Your task to perform on an android device: Search for flights from NYC to Barcelona Image 0: 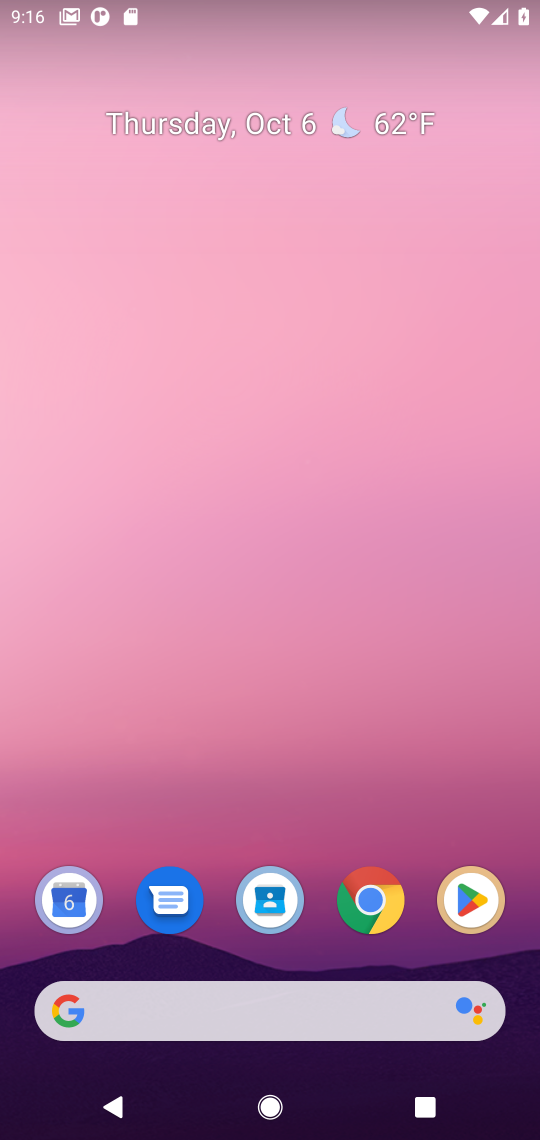
Step 0: press home button
Your task to perform on an android device: Search for flights from NYC to Barcelona Image 1: 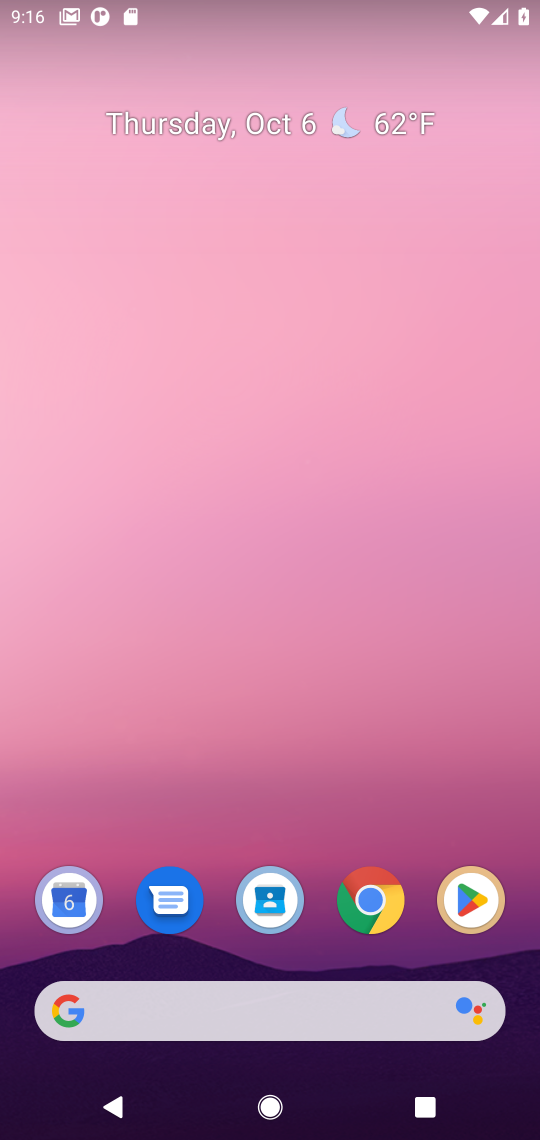
Step 1: click (329, 1007)
Your task to perform on an android device: Search for flights from NYC to Barcelona Image 2: 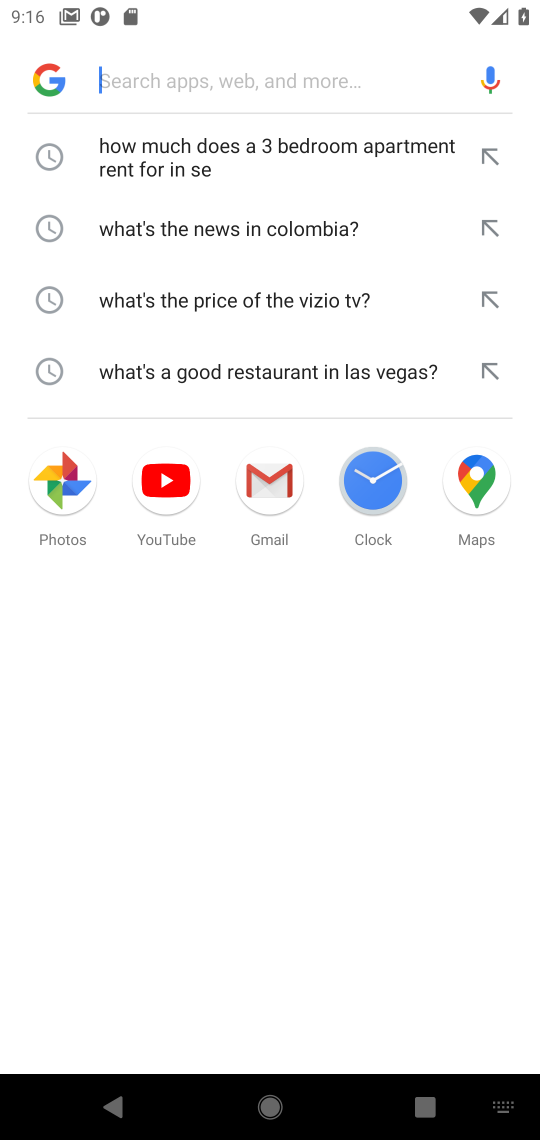
Step 2: type "flights from NYC to Barcelona"
Your task to perform on an android device: Search for flights from NYC to Barcelona Image 3: 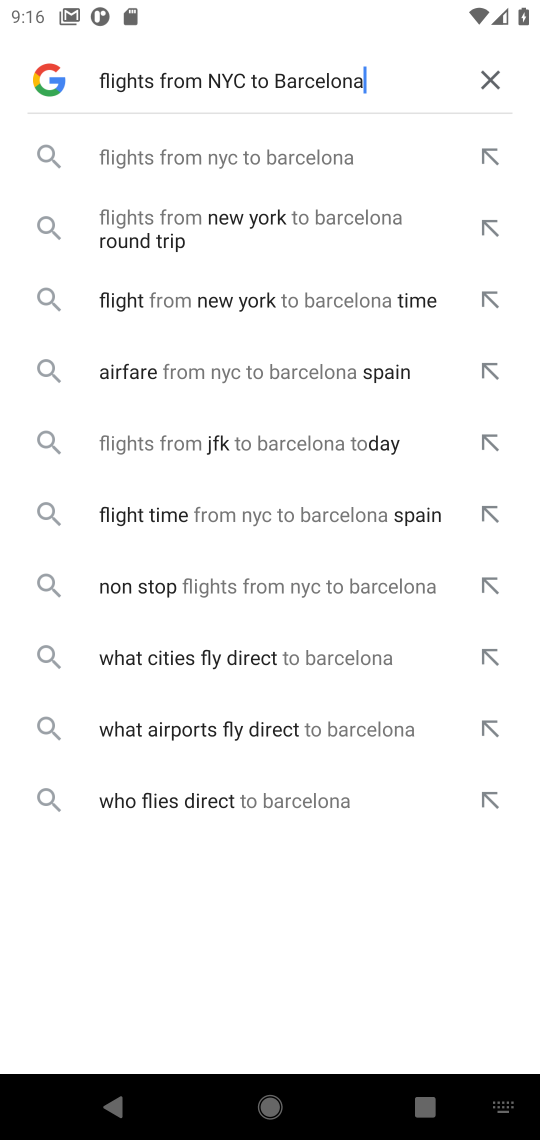
Step 3: press enter
Your task to perform on an android device: Search for flights from NYC to Barcelona Image 4: 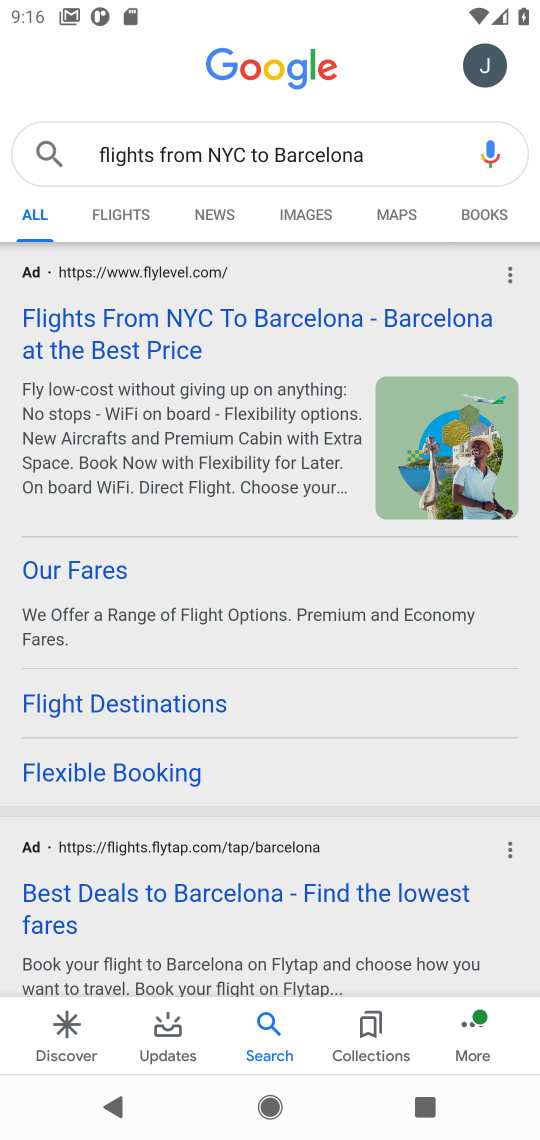
Step 4: drag from (310, 891) to (316, 606)
Your task to perform on an android device: Search for flights from NYC to Barcelona Image 5: 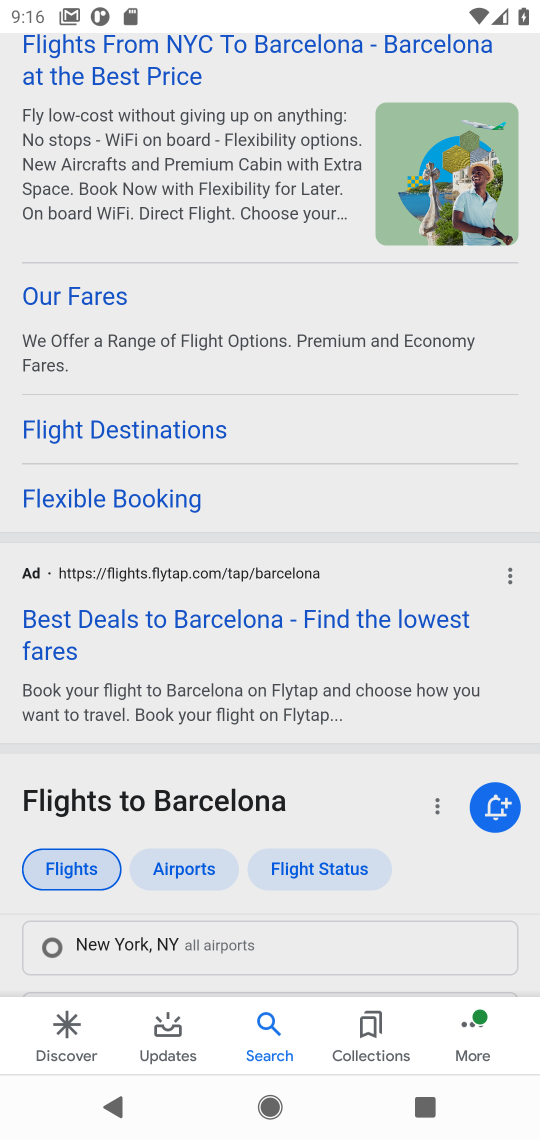
Step 5: drag from (348, 922) to (342, 430)
Your task to perform on an android device: Search for flights from NYC to Barcelona Image 6: 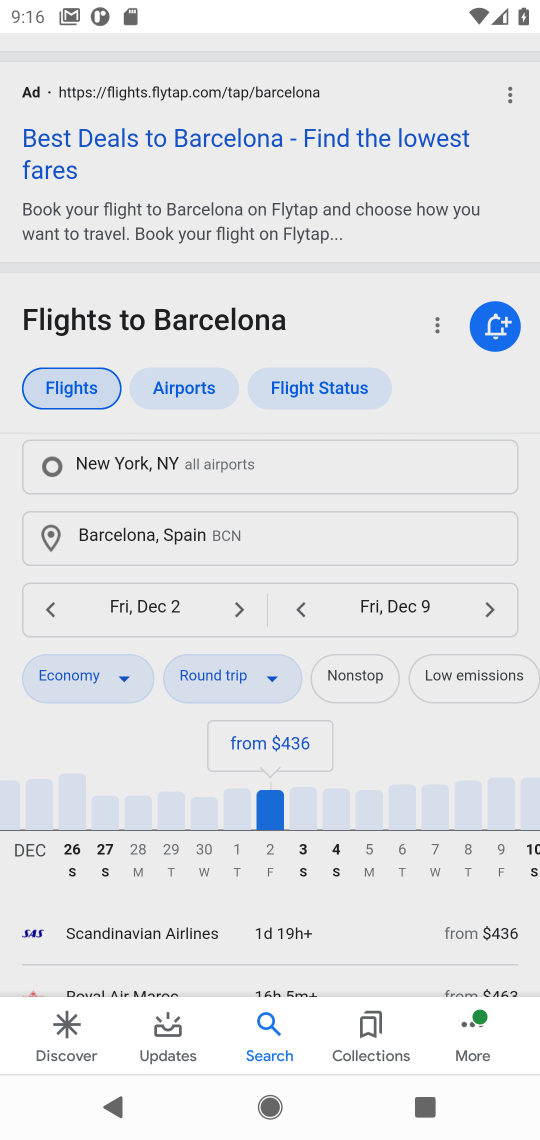
Step 6: drag from (344, 891) to (350, 419)
Your task to perform on an android device: Search for flights from NYC to Barcelona Image 7: 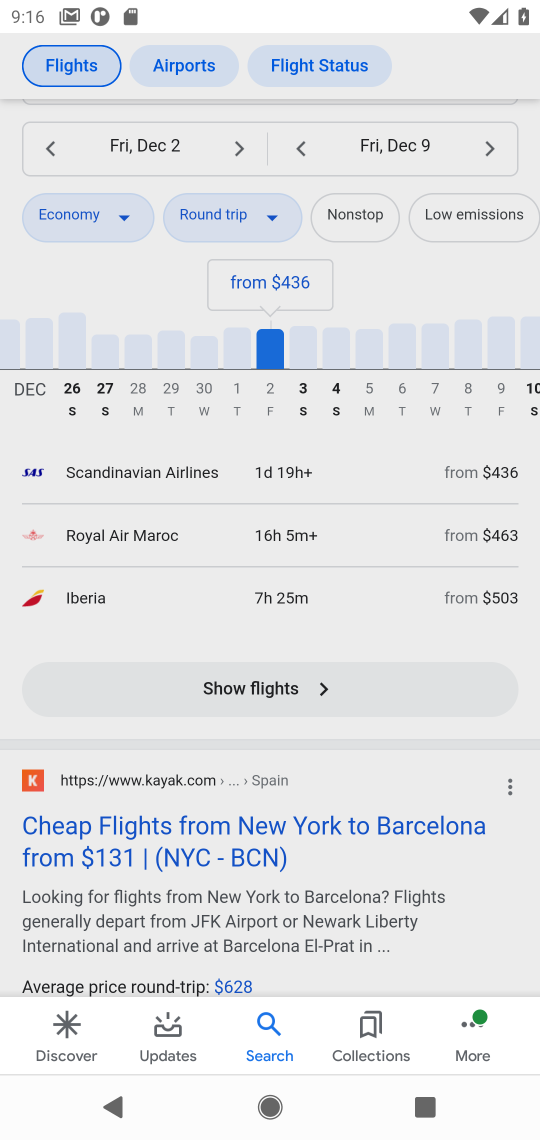
Step 7: click (257, 685)
Your task to perform on an android device: Search for flights from NYC to Barcelona Image 8: 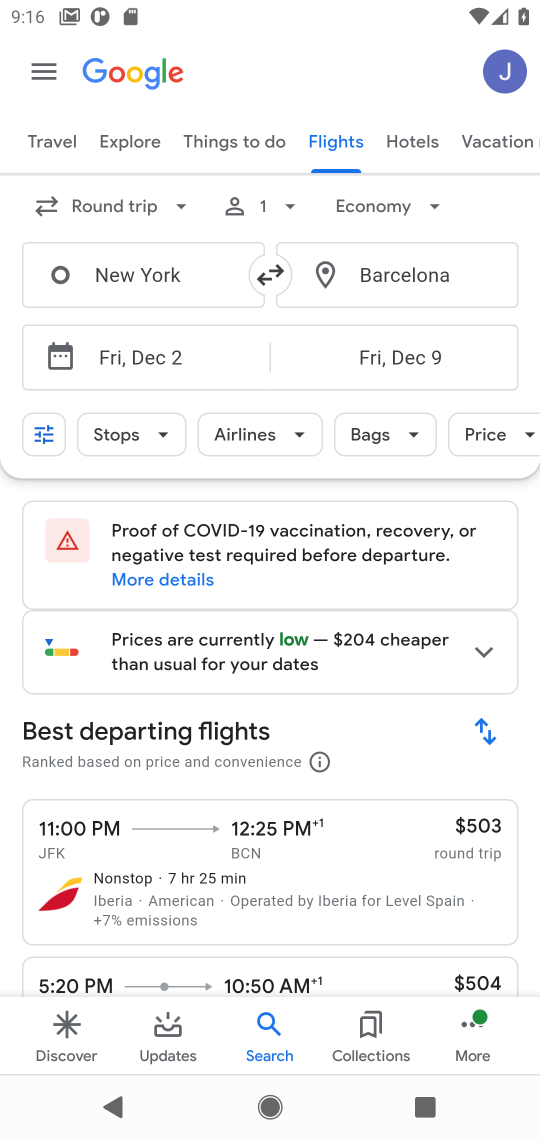
Step 8: task complete